Your task to perform on an android device: turn on priority inbox in the gmail app Image 0: 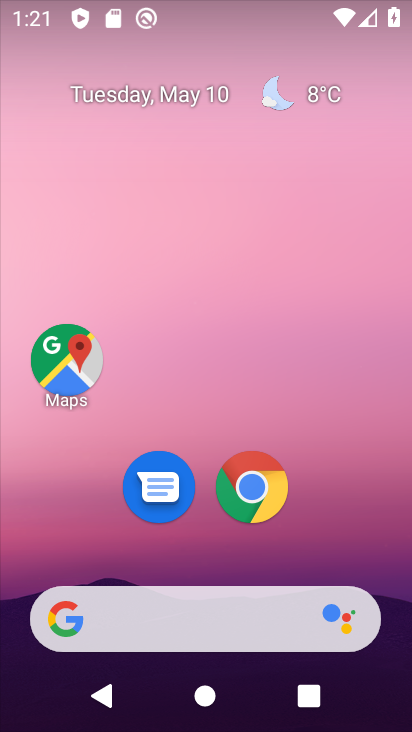
Step 0: drag from (346, 481) to (359, 58)
Your task to perform on an android device: turn on priority inbox in the gmail app Image 1: 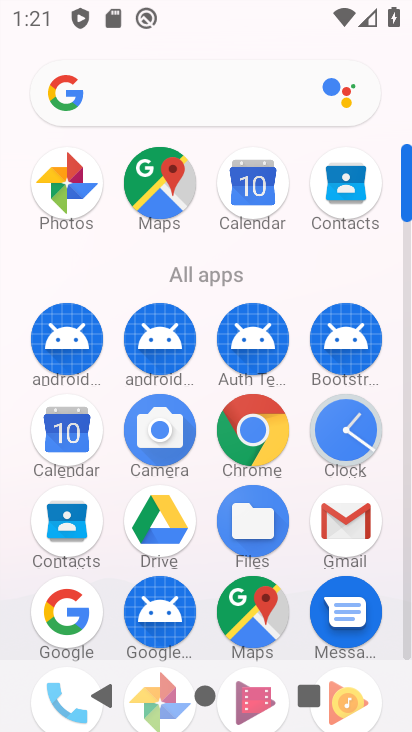
Step 1: click (338, 522)
Your task to perform on an android device: turn on priority inbox in the gmail app Image 2: 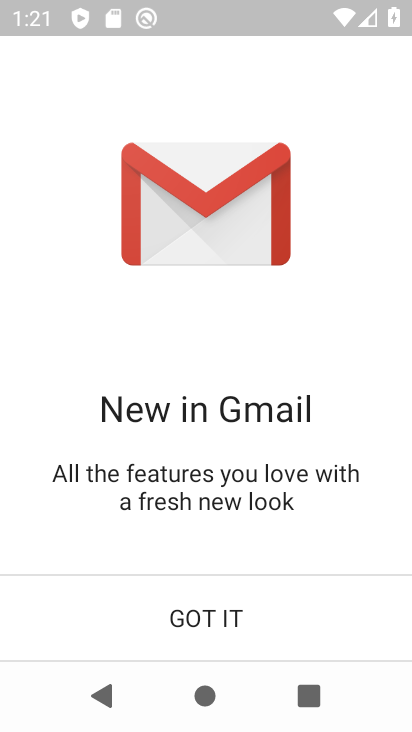
Step 2: click (225, 613)
Your task to perform on an android device: turn on priority inbox in the gmail app Image 3: 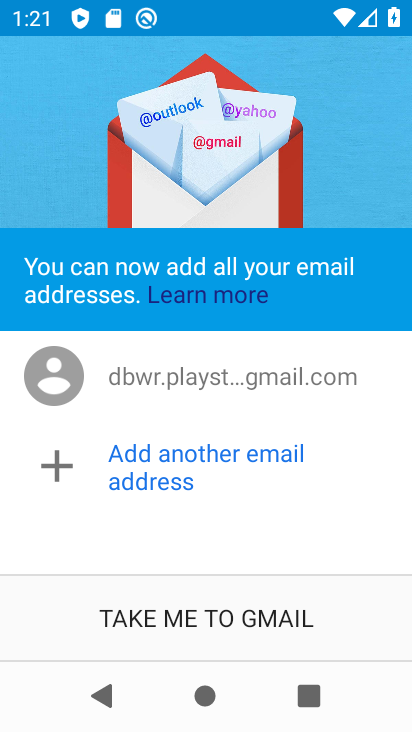
Step 3: click (224, 618)
Your task to perform on an android device: turn on priority inbox in the gmail app Image 4: 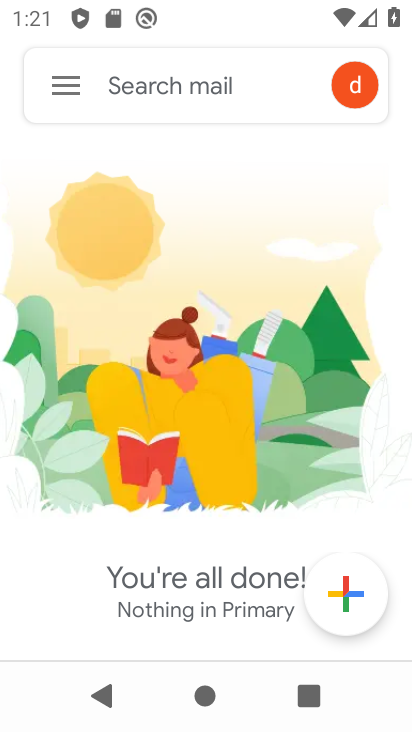
Step 4: click (67, 87)
Your task to perform on an android device: turn on priority inbox in the gmail app Image 5: 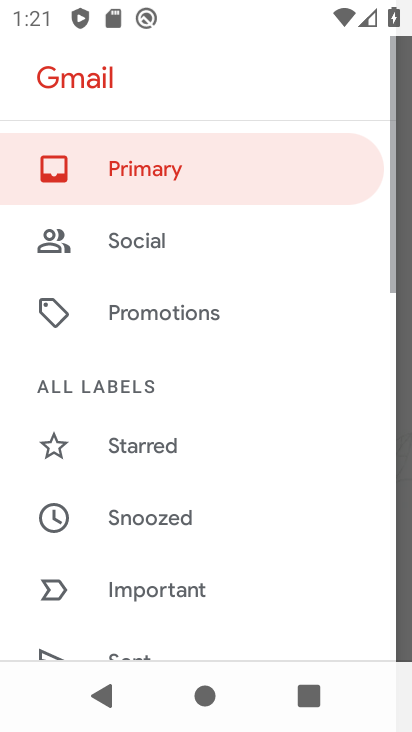
Step 5: drag from (212, 567) to (254, 129)
Your task to perform on an android device: turn on priority inbox in the gmail app Image 6: 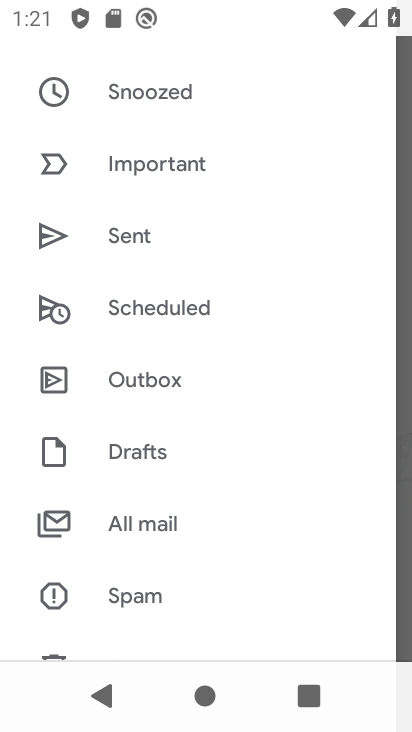
Step 6: drag from (190, 480) to (338, 62)
Your task to perform on an android device: turn on priority inbox in the gmail app Image 7: 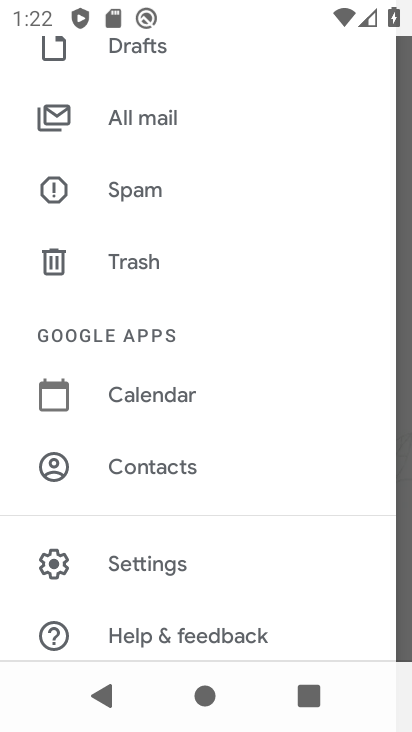
Step 7: click (163, 570)
Your task to perform on an android device: turn on priority inbox in the gmail app Image 8: 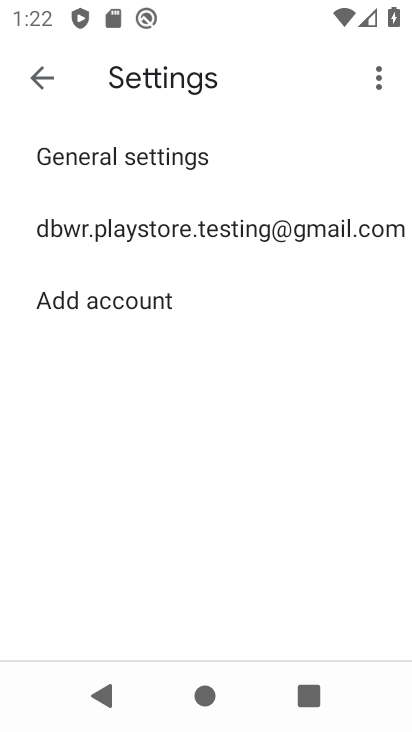
Step 8: click (242, 223)
Your task to perform on an android device: turn on priority inbox in the gmail app Image 9: 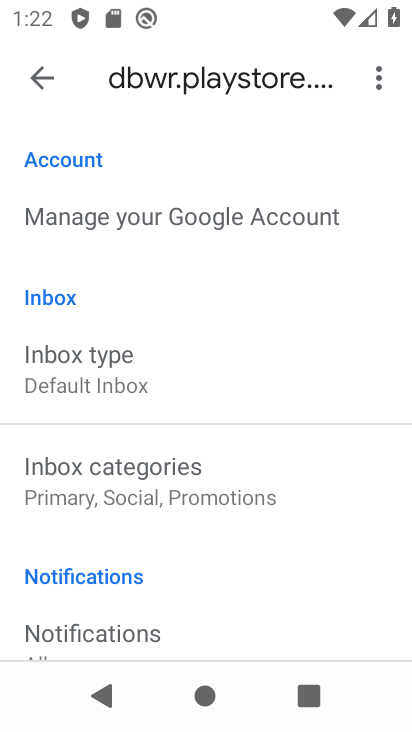
Step 9: click (107, 364)
Your task to perform on an android device: turn on priority inbox in the gmail app Image 10: 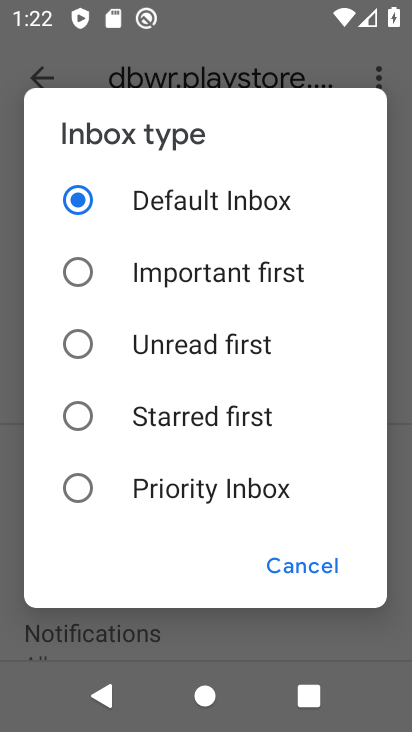
Step 10: task complete